Your task to perform on an android device: Go to accessibility settings Image 0: 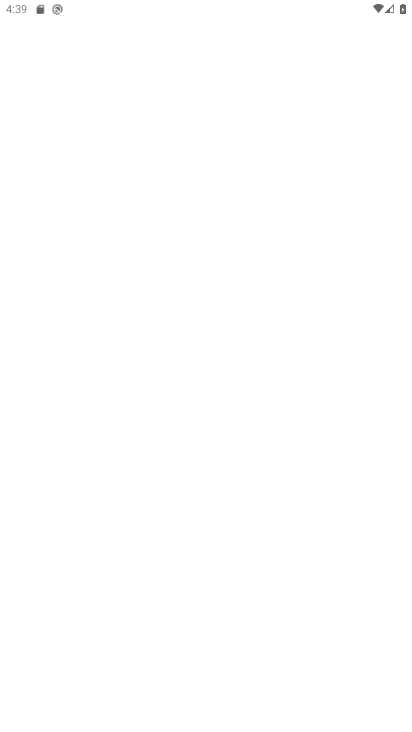
Step 0: press home button
Your task to perform on an android device: Go to accessibility settings Image 1: 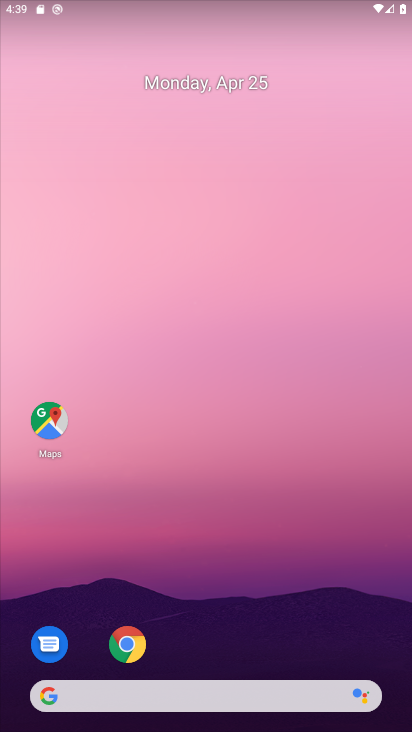
Step 1: drag from (288, 562) to (244, 40)
Your task to perform on an android device: Go to accessibility settings Image 2: 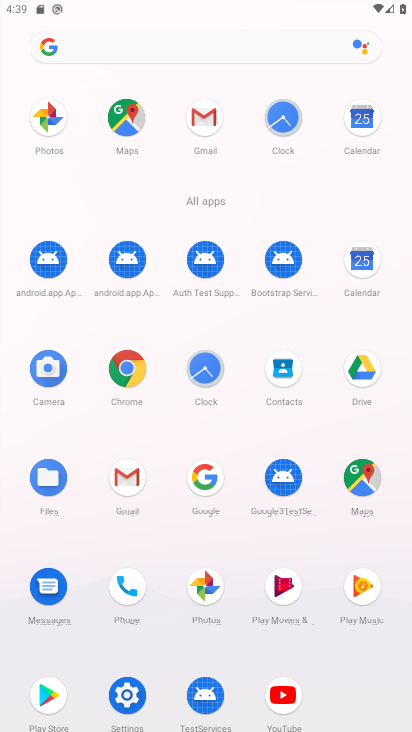
Step 2: click (129, 689)
Your task to perform on an android device: Go to accessibility settings Image 3: 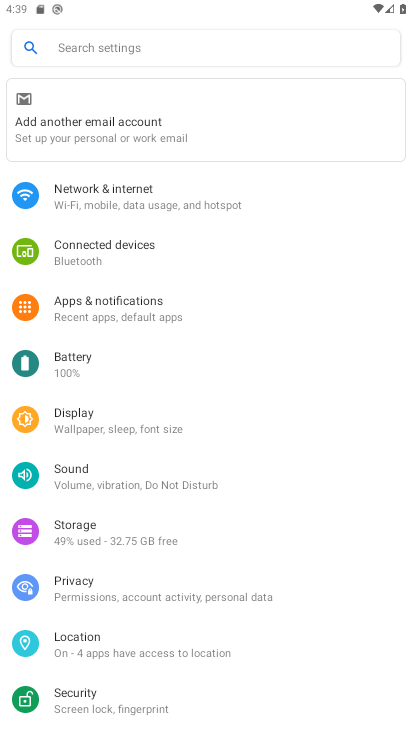
Step 3: drag from (285, 653) to (300, 262)
Your task to perform on an android device: Go to accessibility settings Image 4: 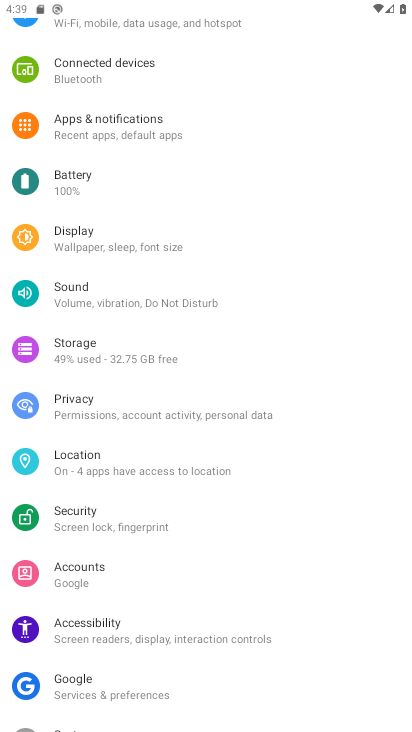
Step 4: click (160, 622)
Your task to perform on an android device: Go to accessibility settings Image 5: 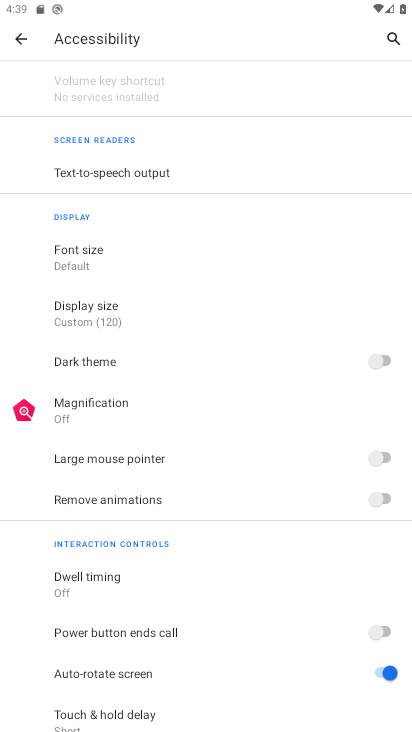
Step 5: task complete